Your task to perform on an android device: Search for razer thresher on ebay, select the first entry, add it to the cart, then select checkout. Image 0: 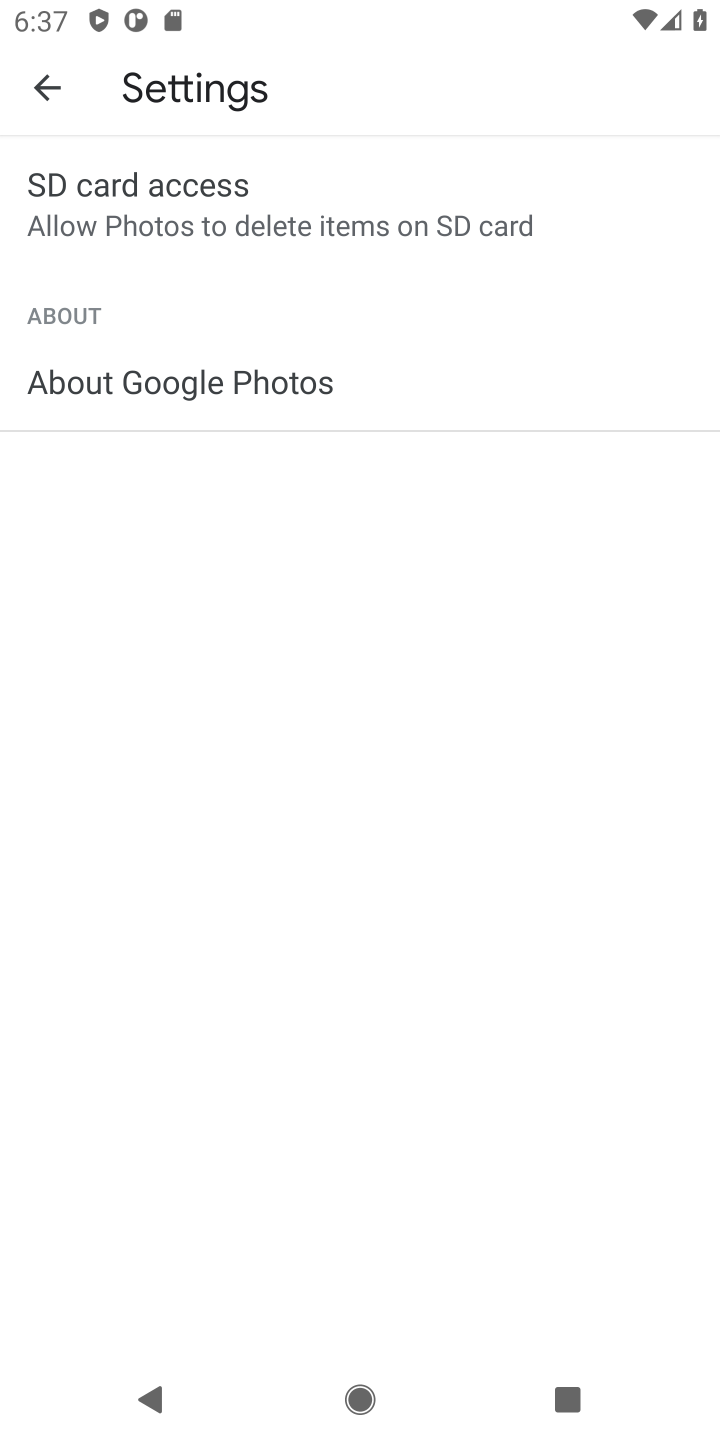
Step 0: press home button
Your task to perform on an android device: Search for razer thresher on ebay, select the first entry, add it to the cart, then select checkout. Image 1: 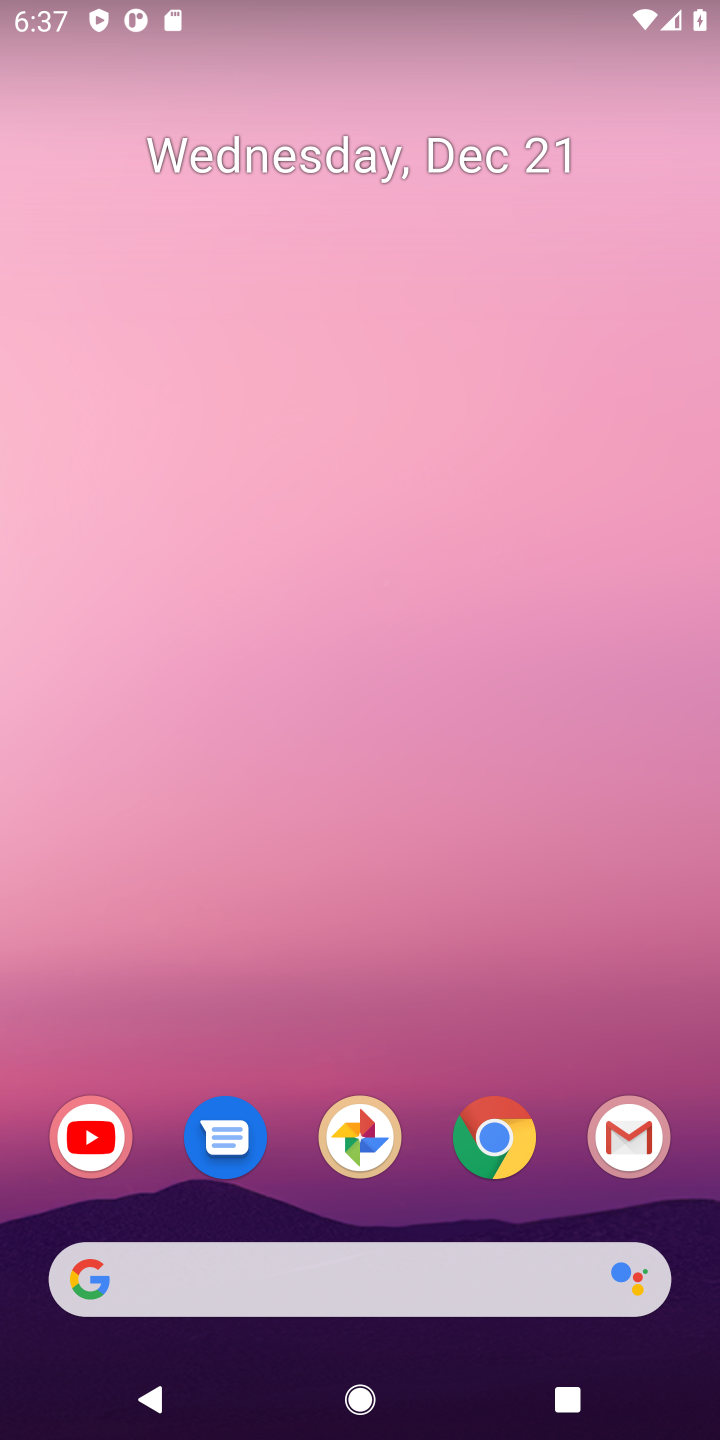
Step 1: click (495, 1158)
Your task to perform on an android device: Search for razer thresher on ebay, select the first entry, add it to the cart, then select checkout. Image 2: 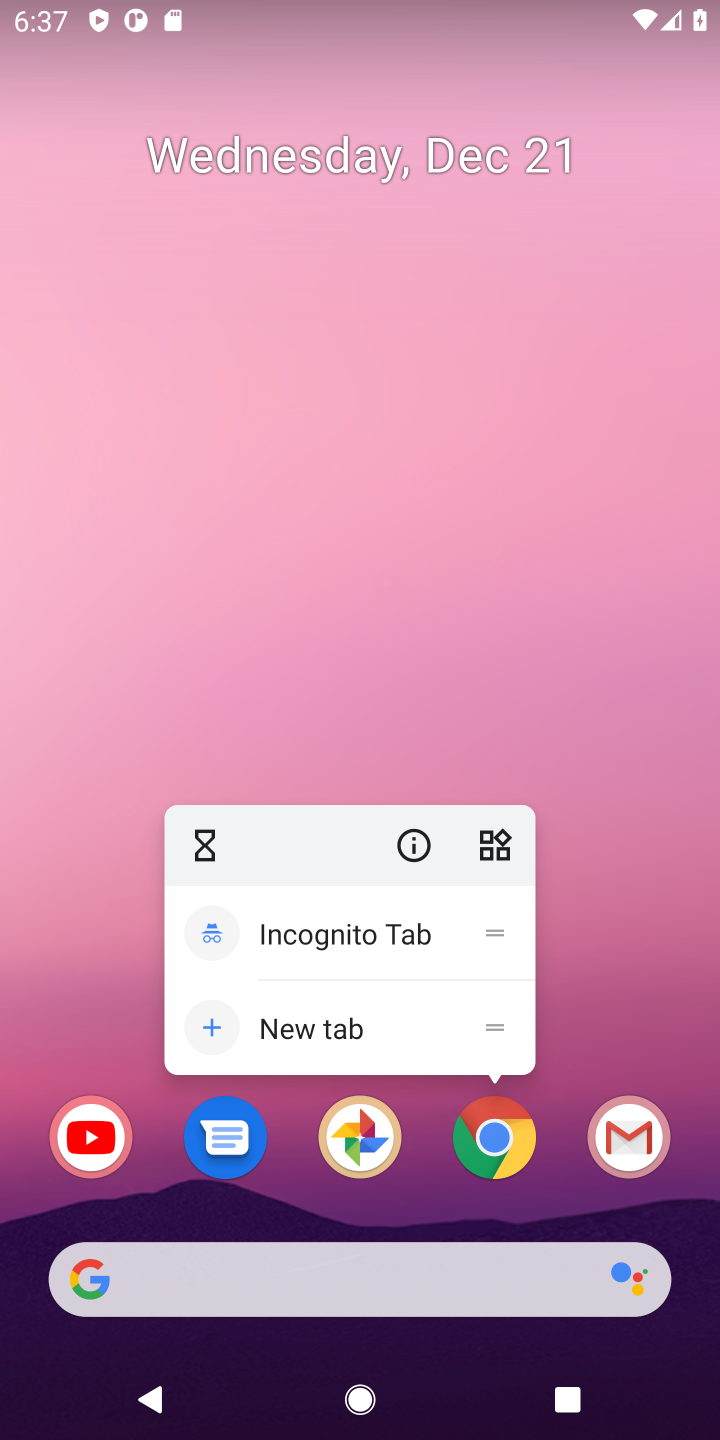
Step 2: click (495, 1145)
Your task to perform on an android device: Search for razer thresher on ebay, select the first entry, add it to the cart, then select checkout. Image 3: 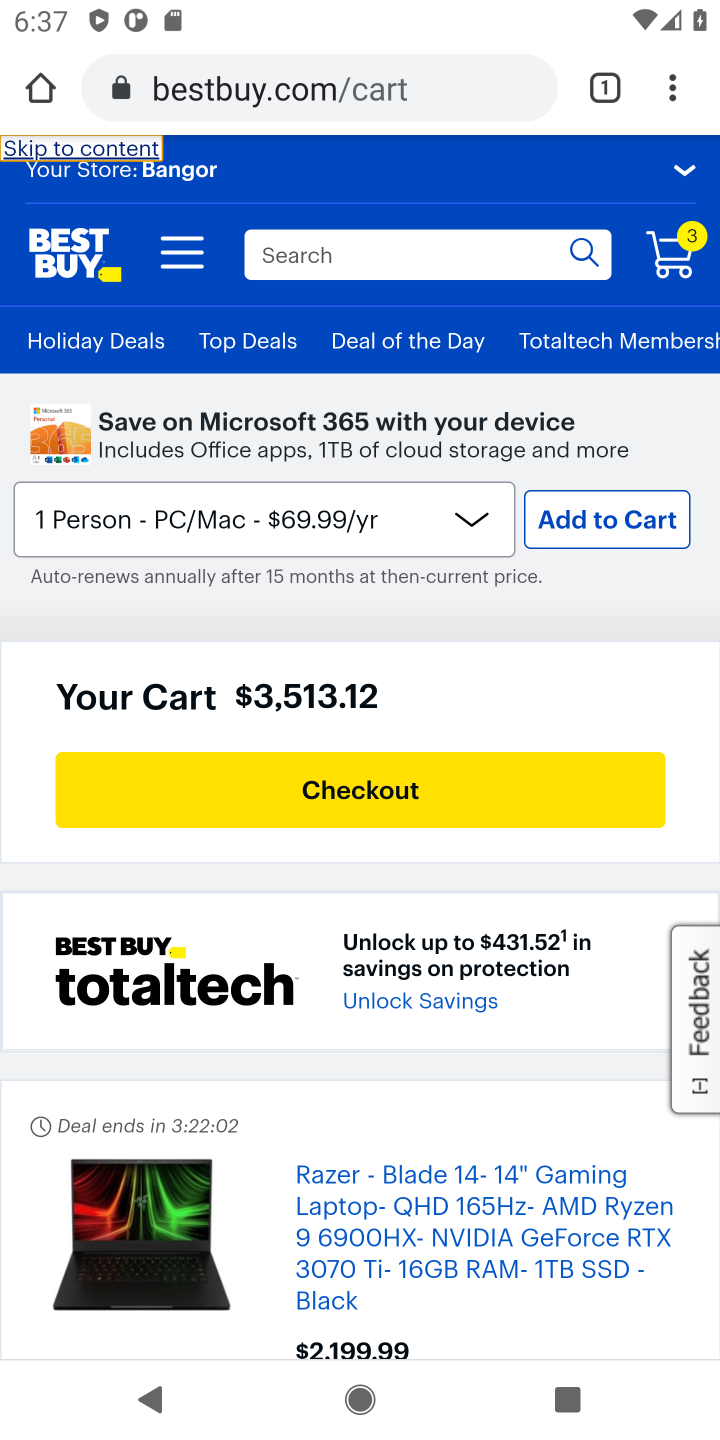
Step 3: click (250, 83)
Your task to perform on an android device: Search for razer thresher on ebay, select the first entry, add it to the cart, then select checkout. Image 4: 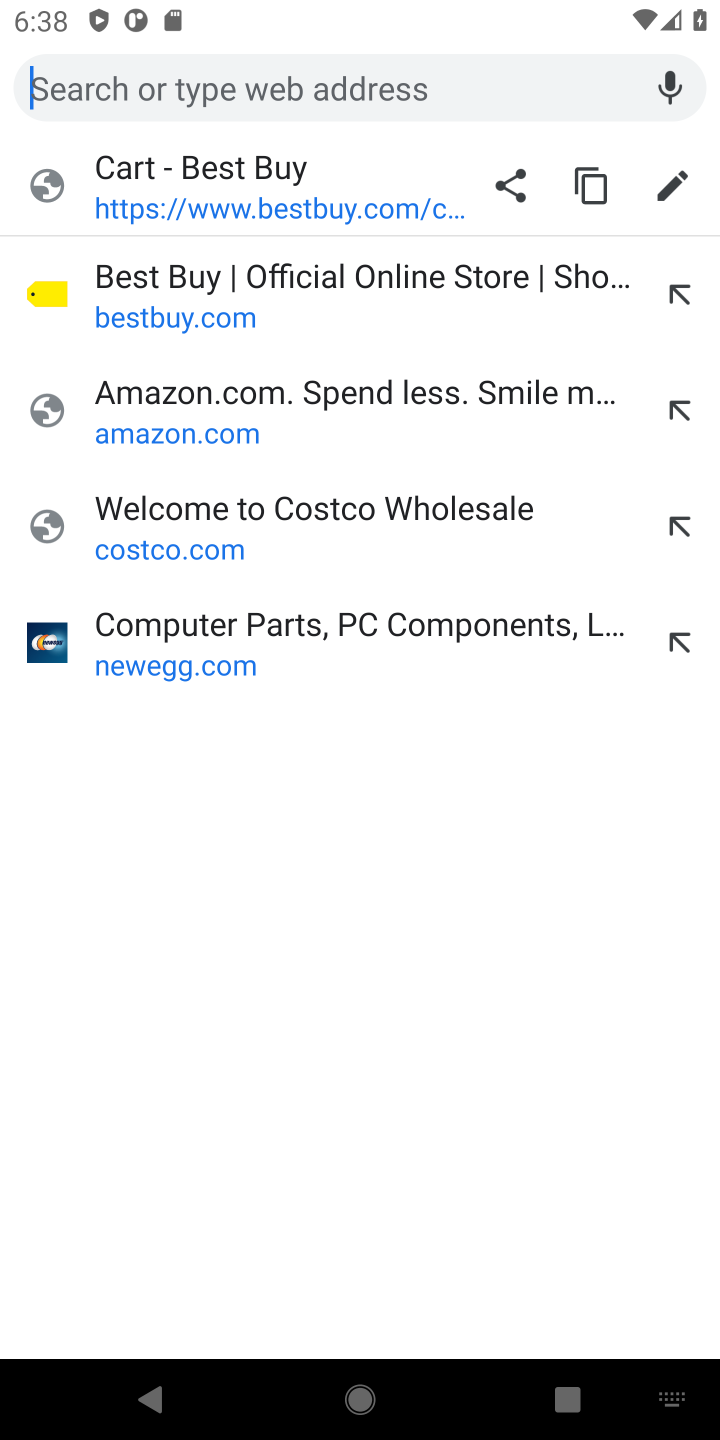
Step 4: type "ebay.com"
Your task to perform on an android device: Search for razer thresher on ebay, select the first entry, add it to the cart, then select checkout. Image 5: 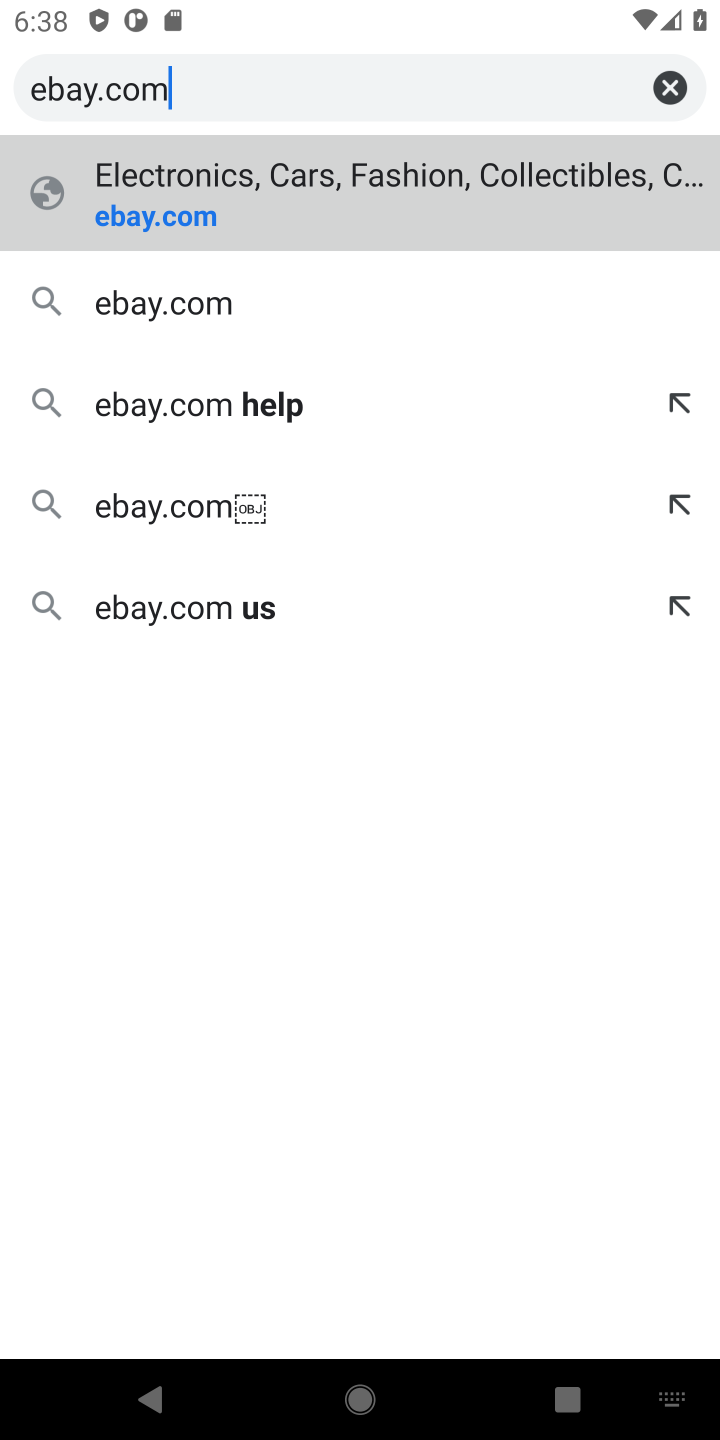
Step 5: click (176, 210)
Your task to perform on an android device: Search for razer thresher on ebay, select the first entry, add it to the cart, then select checkout. Image 6: 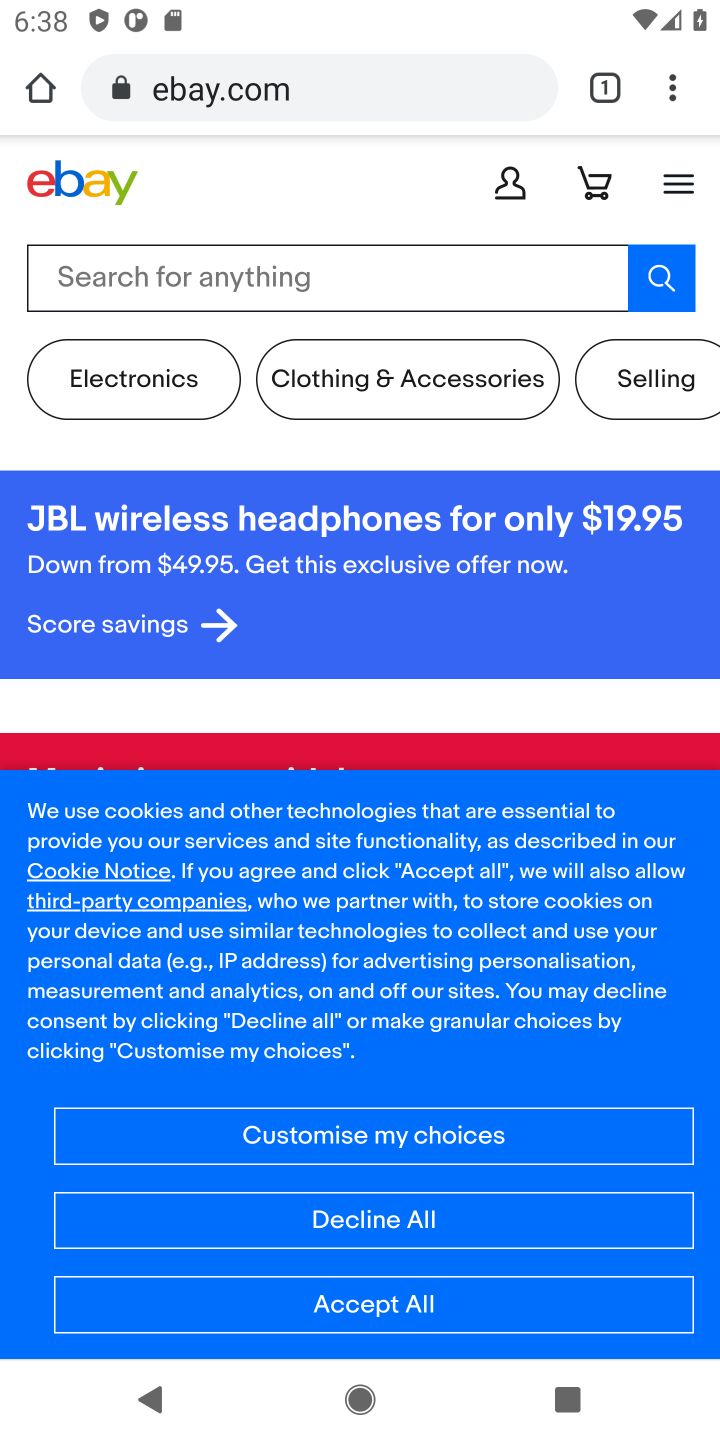
Step 6: click (120, 288)
Your task to perform on an android device: Search for razer thresher on ebay, select the first entry, add it to the cart, then select checkout. Image 7: 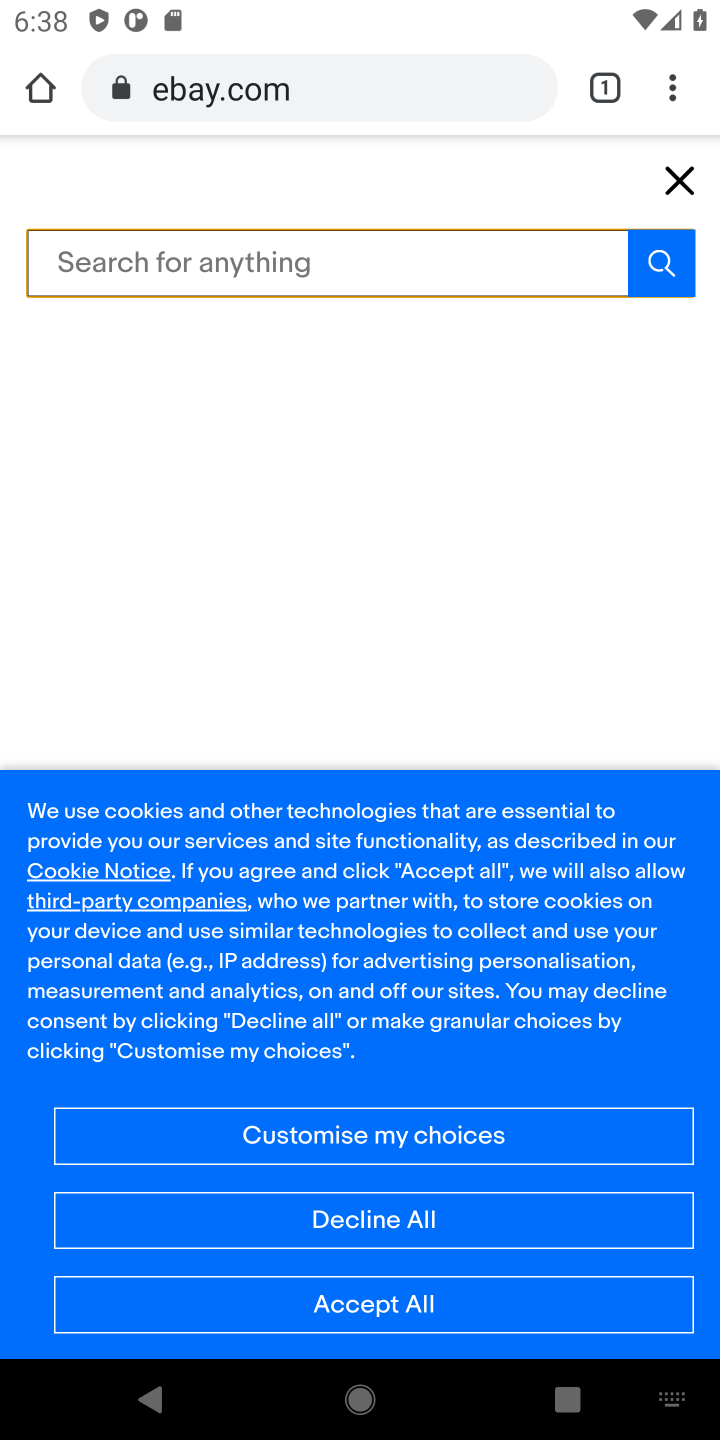
Step 7: type "razer thresher "
Your task to perform on an android device: Search for razer thresher on ebay, select the first entry, add it to the cart, then select checkout. Image 8: 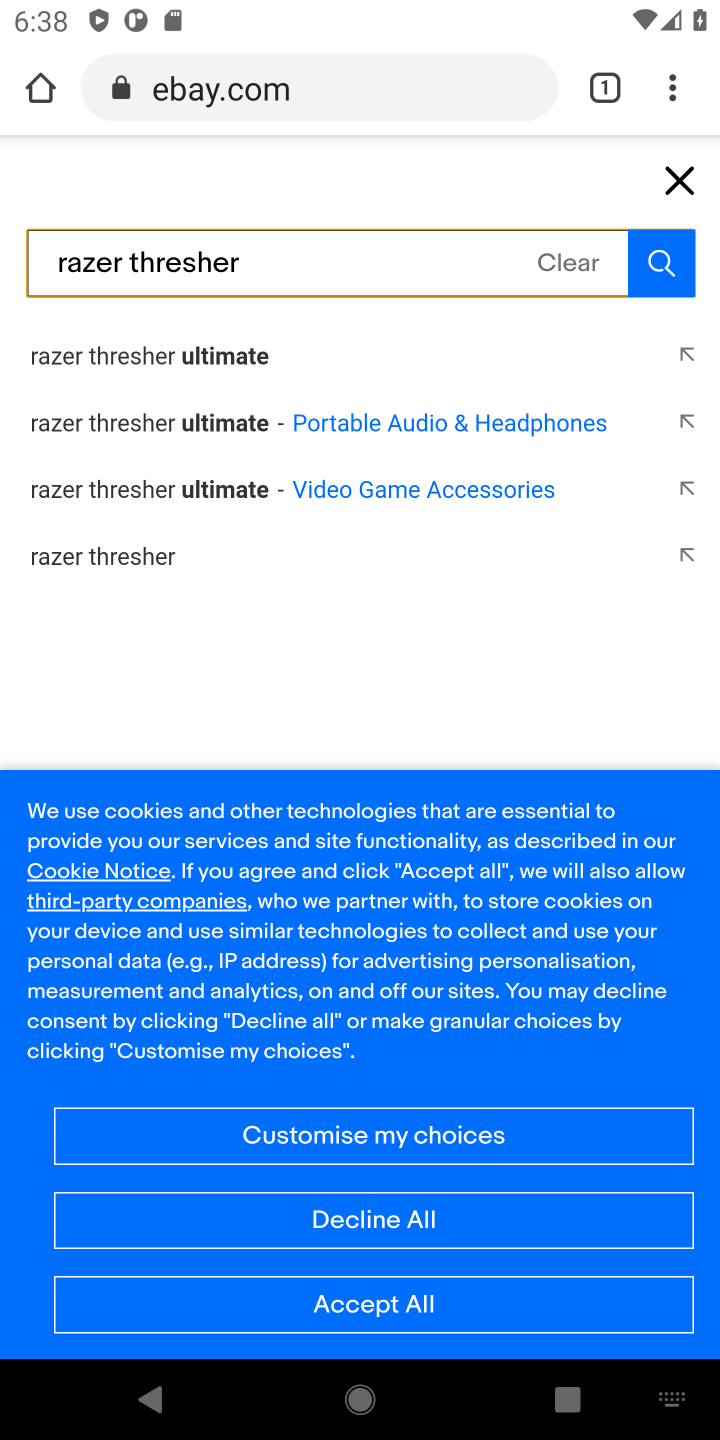
Step 8: click (85, 554)
Your task to perform on an android device: Search for razer thresher on ebay, select the first entry, add it to the cart, then select checkout. Image 9: 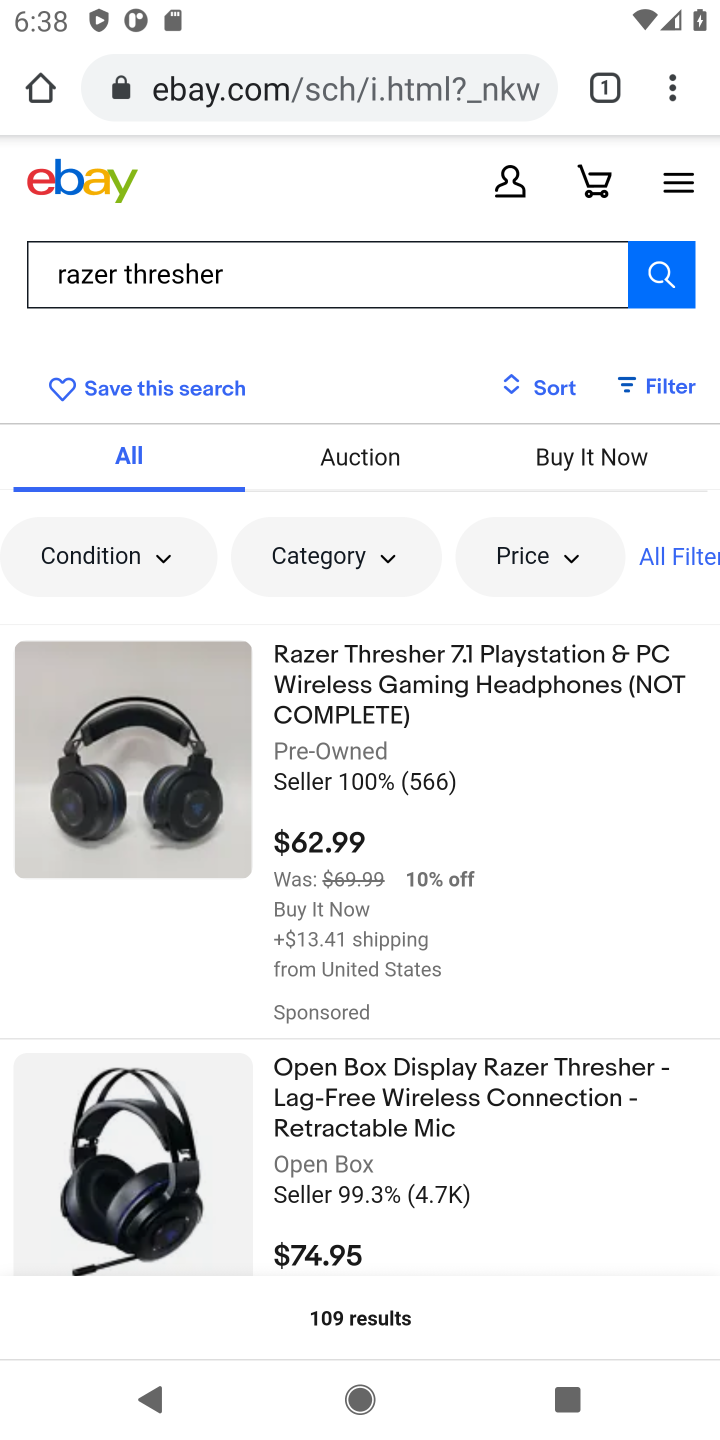
Step 9: click (311, 671)
Your task to perform on an android device: Search for razer thresher on ebay, select the first entry, add it to the cart, then select checkout. Image 10: 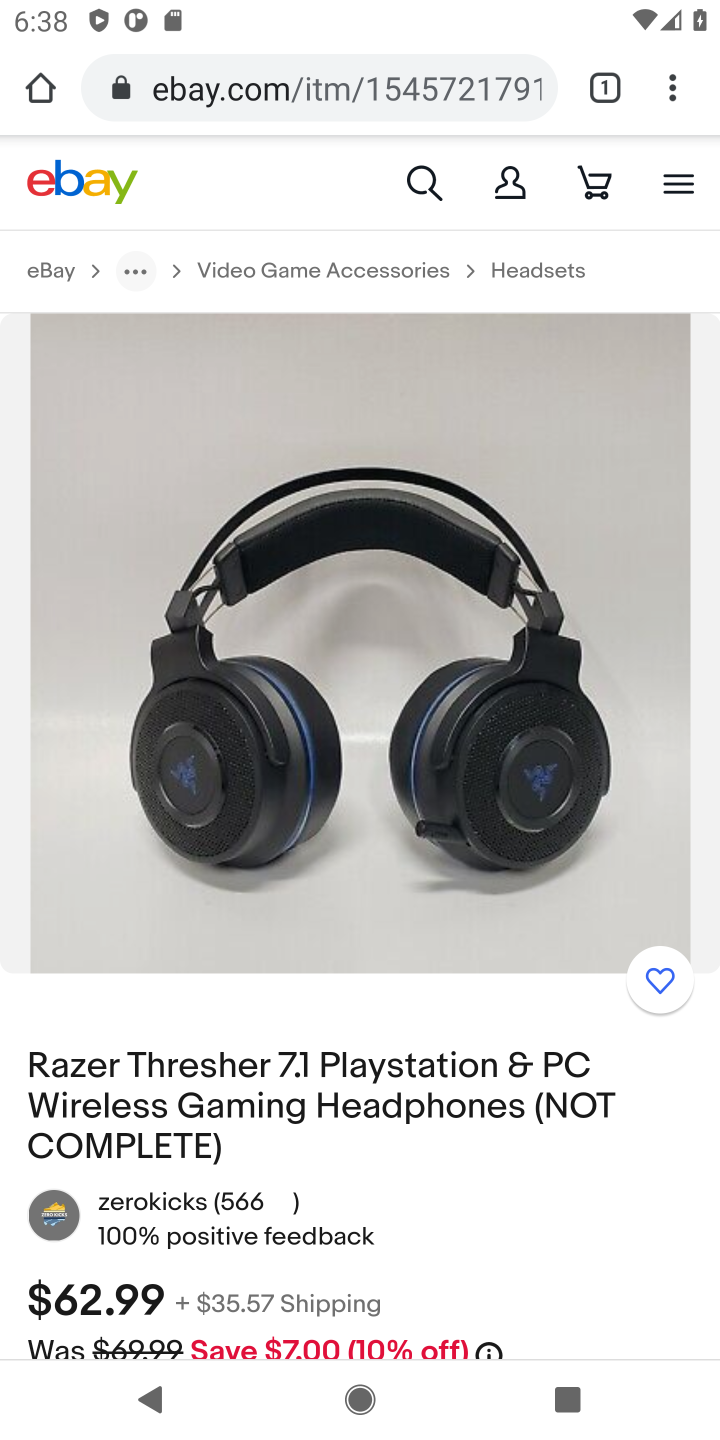
Step 10: drag from (311, 1064) to (283, 529)
Your task to perform on an android device: Search for razer thresher on ebay, select the first entry, add it to the cart, then select checkout. Image 11: 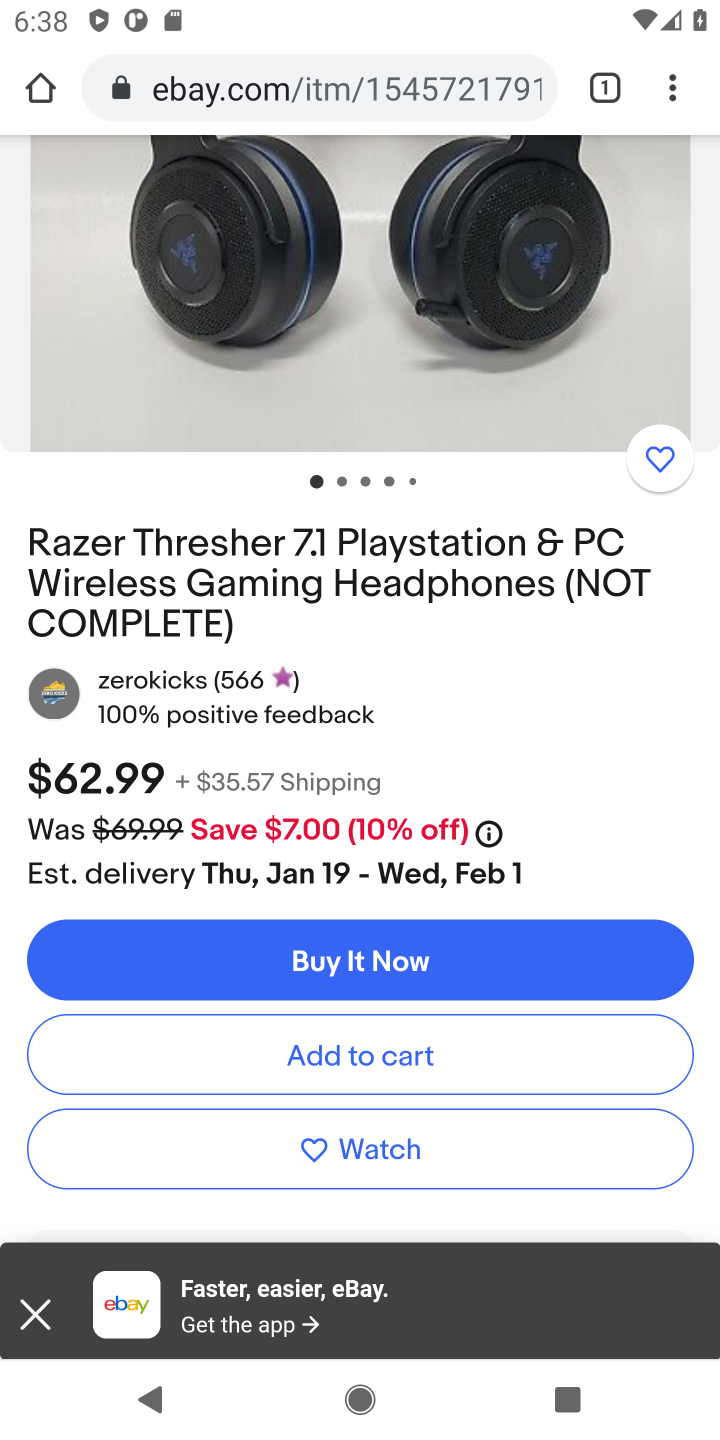
Step 11: click (300, 1056)
Your task to perform on an android device: Search for razer thresher on ebay, select the first entry, add it to the cart, then select checkout. Image 12: 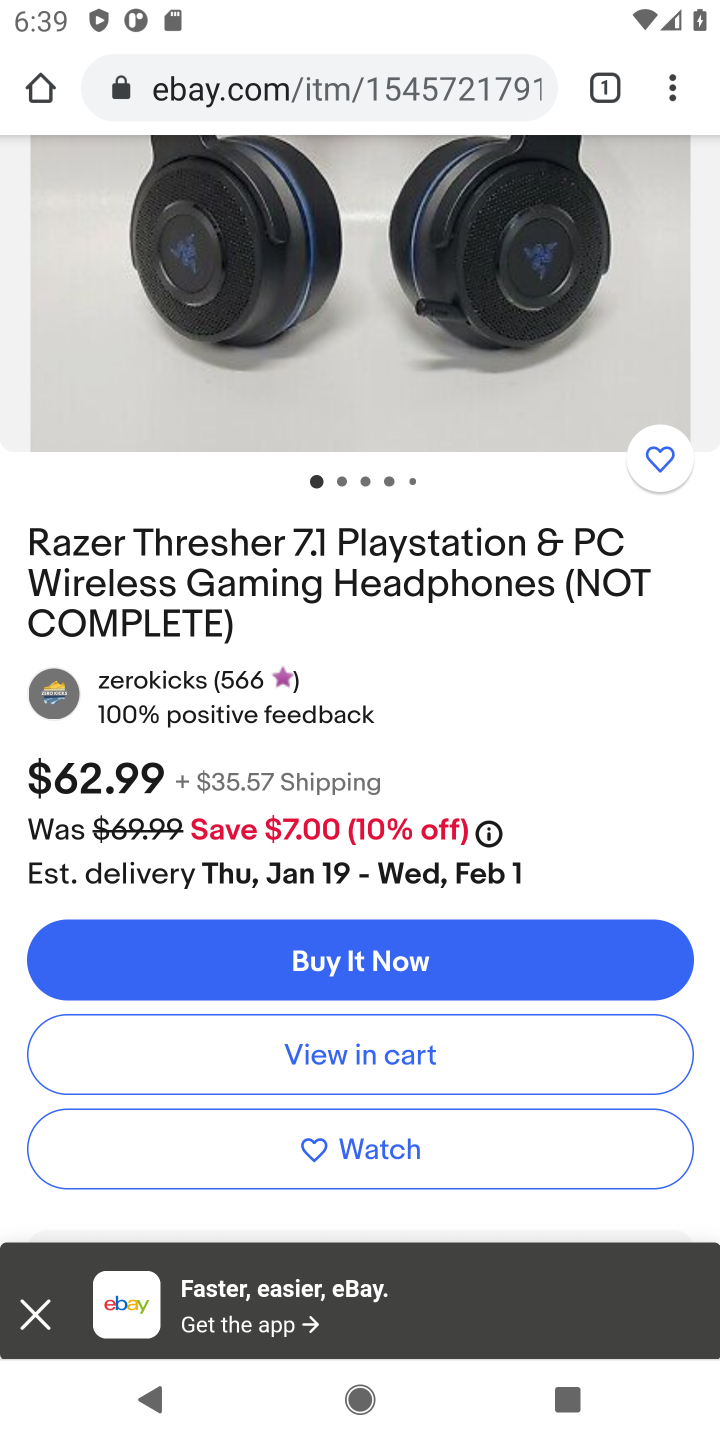
Step 12: click (300, 1056)
Your task to perform on an android device: Search for razer thresher on ebay, select the first entry, add it to the cart, then select checkout. Image 13: 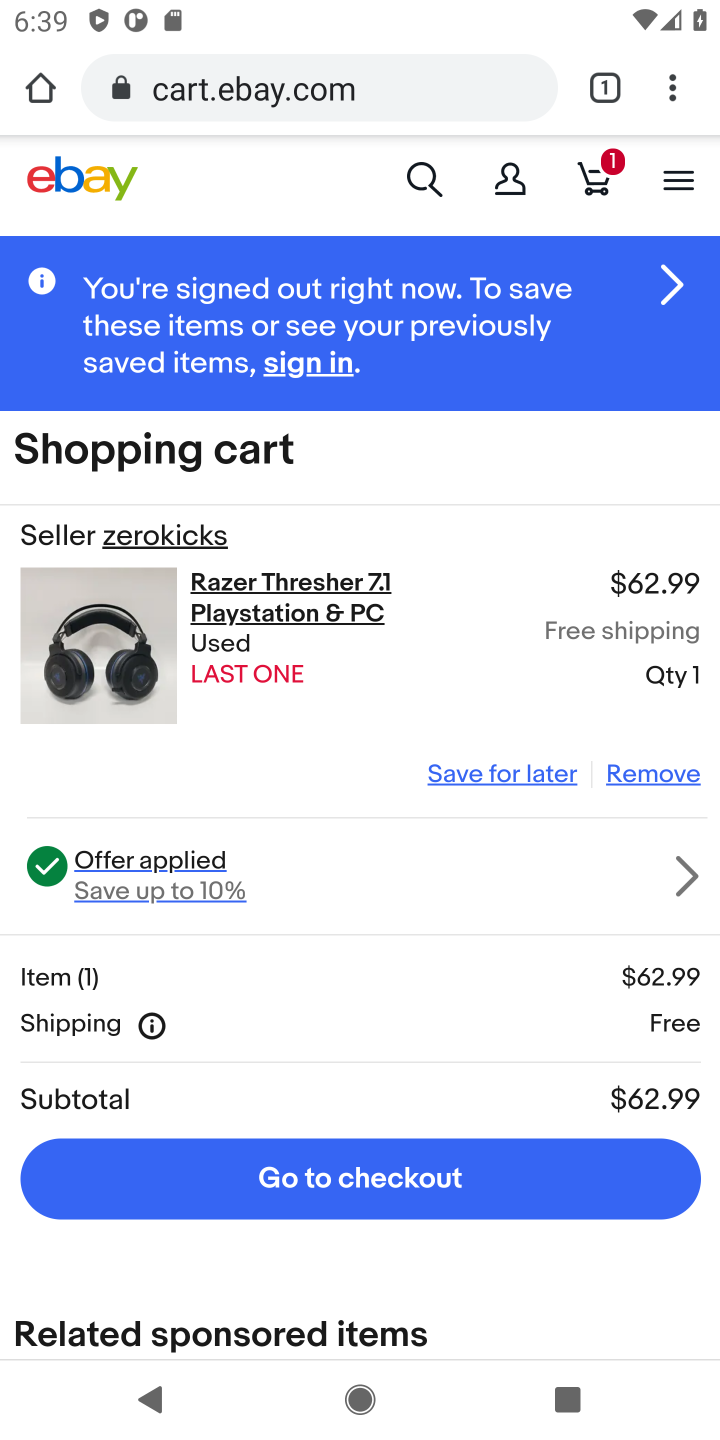
Step 13: click (285, 1153)
Your task to perform on an android device: Search for razer thresher on ebay, select the first entry, add it to the cart, then select checkout. Image 14: 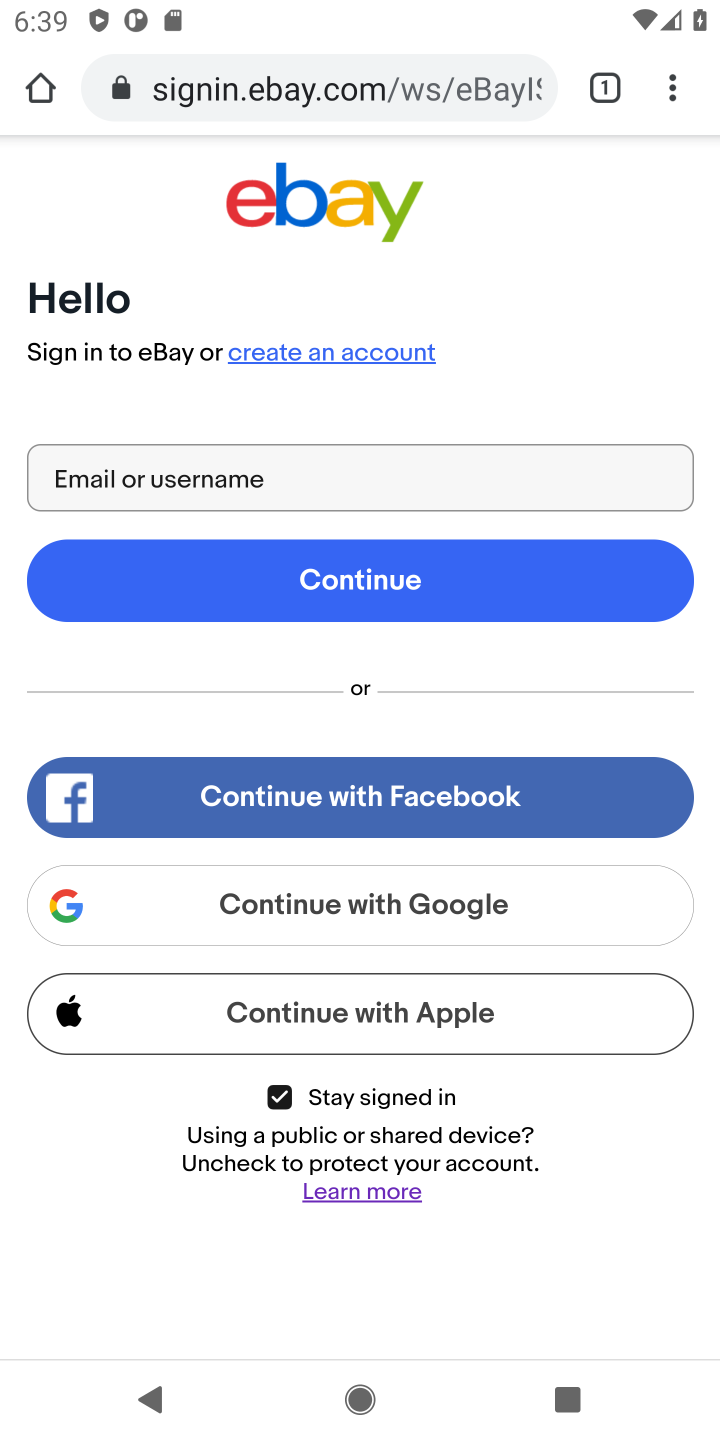
Step 14: task complete